Your task to perform on an android device: manage bookmarks in the chrome app Image 0: 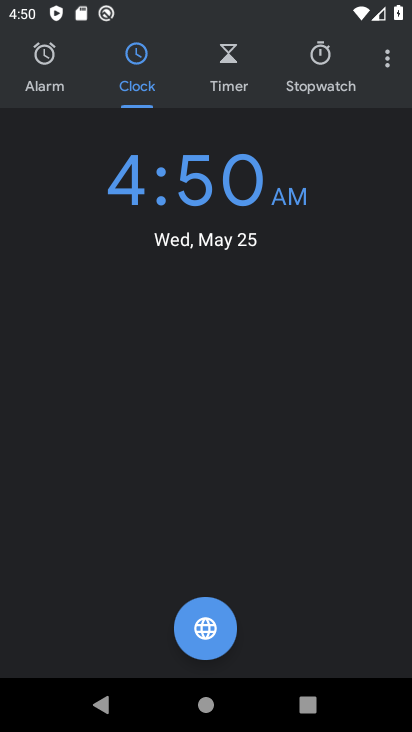
Step 0: press home button
Your task to perform on an android device: manage bookmarks in the chrome app Image 1: 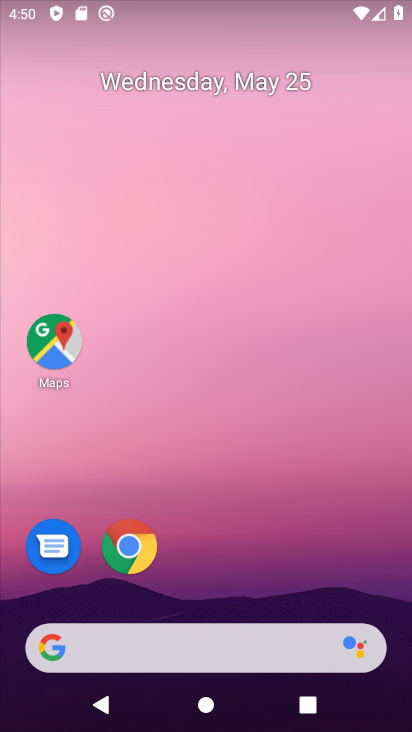
Step 1: click (281, 730)
Your task to perform on an android device: manage bookmarks in the chrome app Image 2: 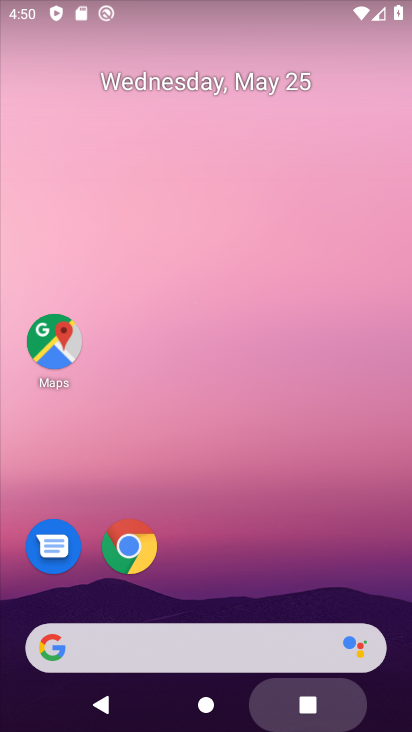
Step 2: drag from (263, 597) to (296, 69)
Your task to perform on an android device: manage bookmarks in the chrome app Image 3: 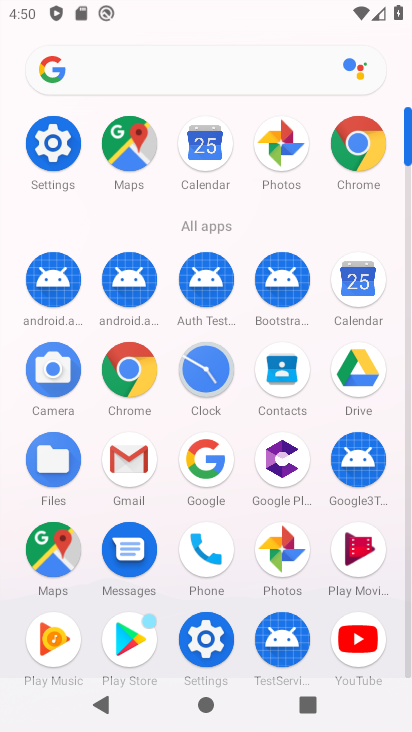
Step 3: click (369, 145)
Your task to perform on an android device: manage bookmarks in the chrome app Image 4: 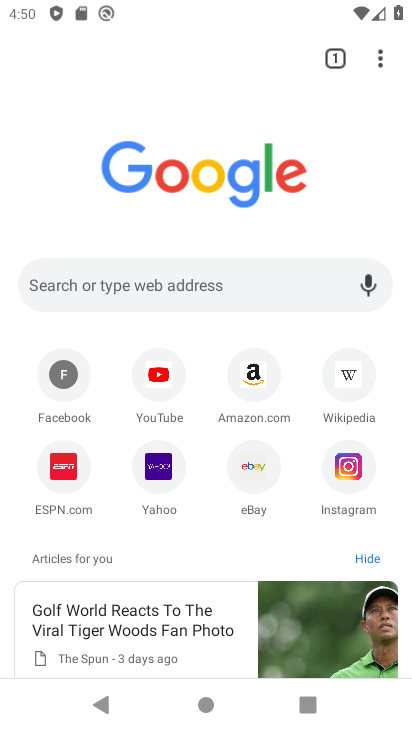
Step 4: click (382, 53)
Your task to perform on an android device: manage bookmarks in the chrome app Image 5: 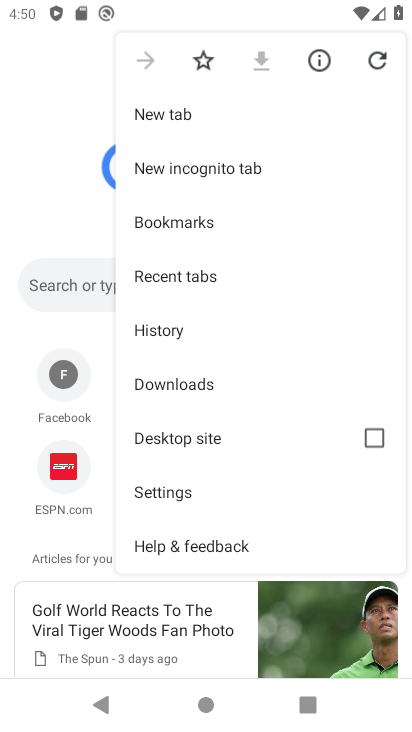
Step 5: click (247, 233)
Your task to perform on an android device: manage bookmarks in the chrome app Image 6: 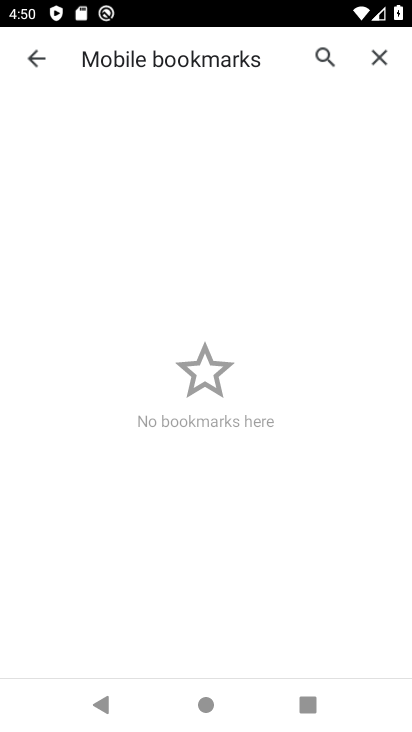
Step 6: task complete